Your task to perform on an android device: What's the weather? Image 0: 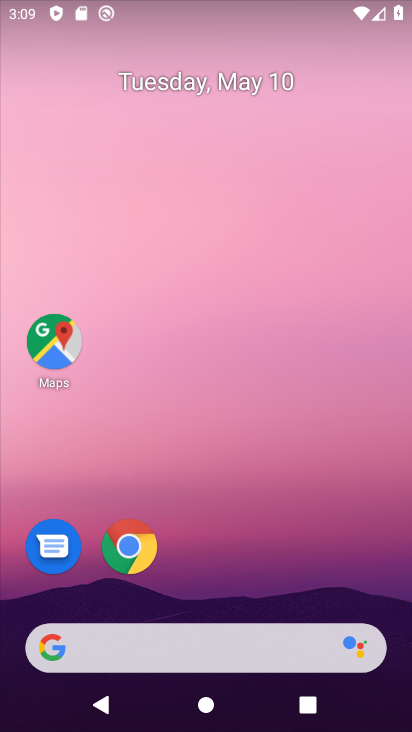
Step 0: click (176, 648)
Your task to perform on an android device: What's the weather? Image 1: 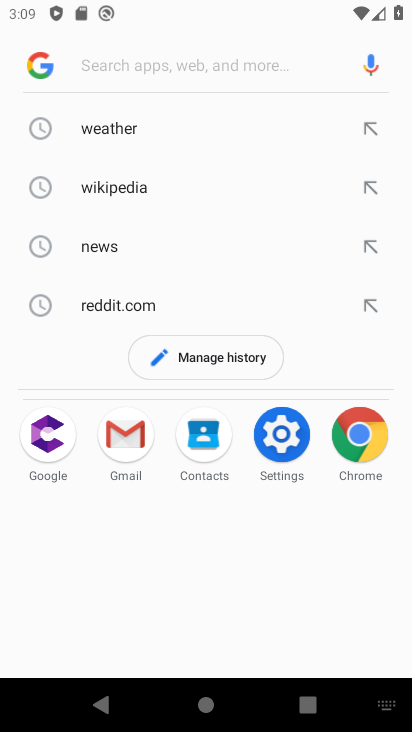
Step 1: click (126, 127)
Your task to perform on an android device: What's the weather? Image 2: 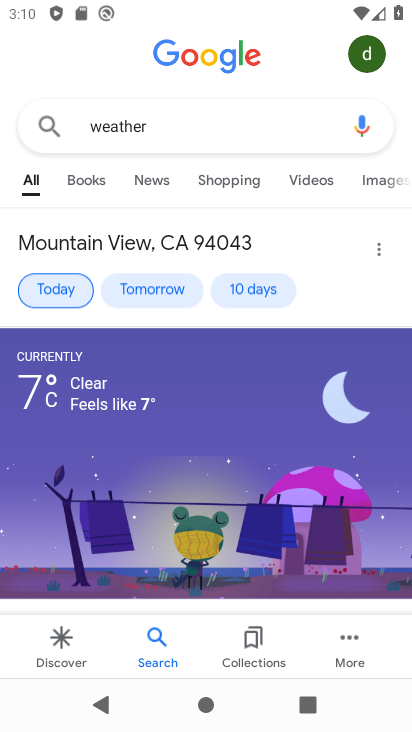
Step 2: task complete